Your task to perform on an android device: turn off location Image 0: 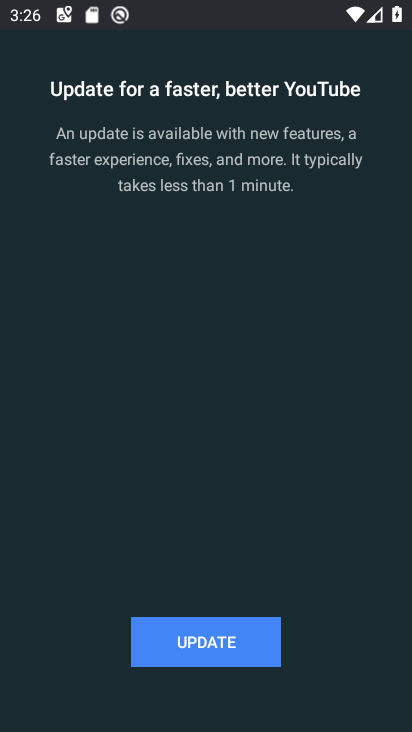
Step 0: press home button
Your task to perform on an android device: turn off location Image 1: 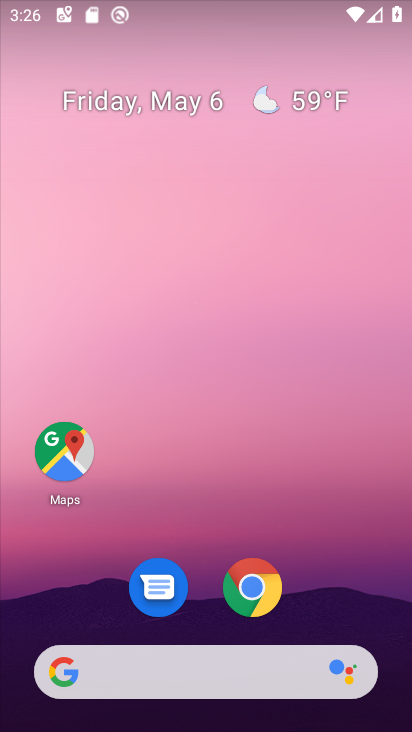
Step 1: drag from (287, 484) to (311, 23)
Your task to perform on an android device: turn off location Image 2: 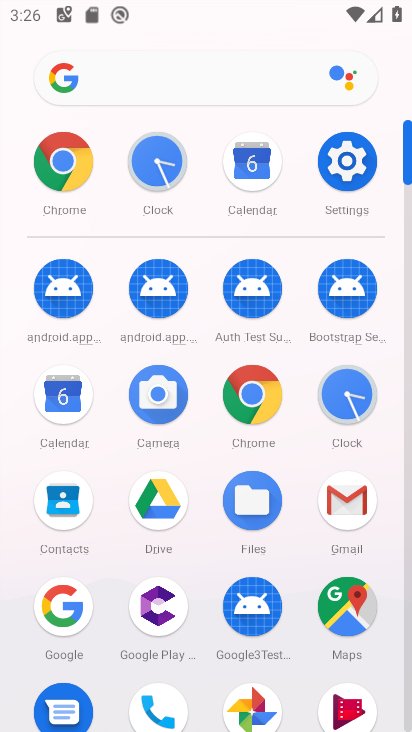
Step 2: click (347, 158)
Your task to perform on an android device: turn off location Image 3: 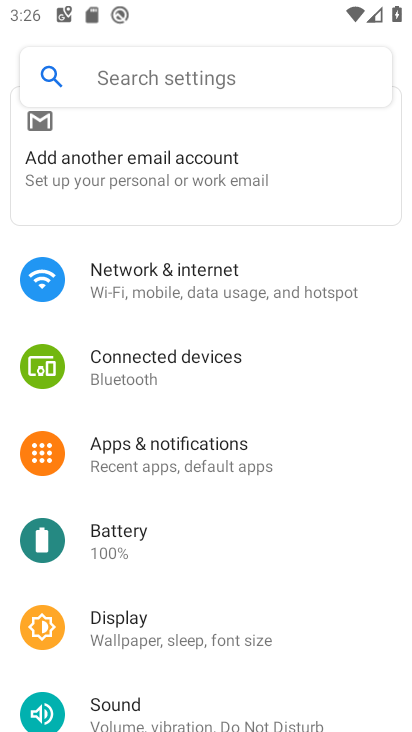
Step 3: drag from (261, 556) to (286, 153)
Your task to perform on an android device: turn off location Image 4: 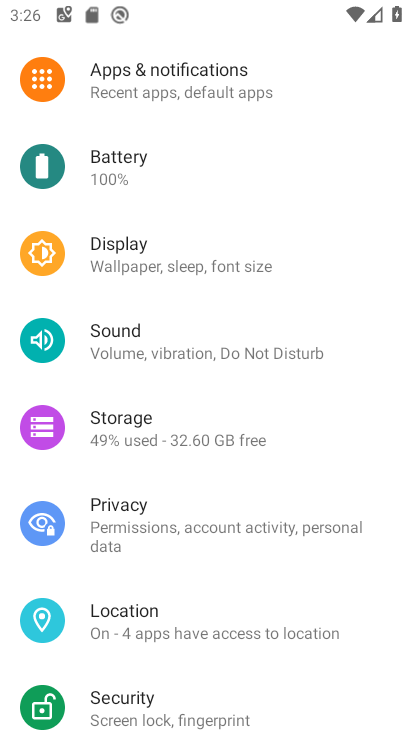
Step 4: click (182, 622)
Your task to perform on an android device: turn off location Image 5: 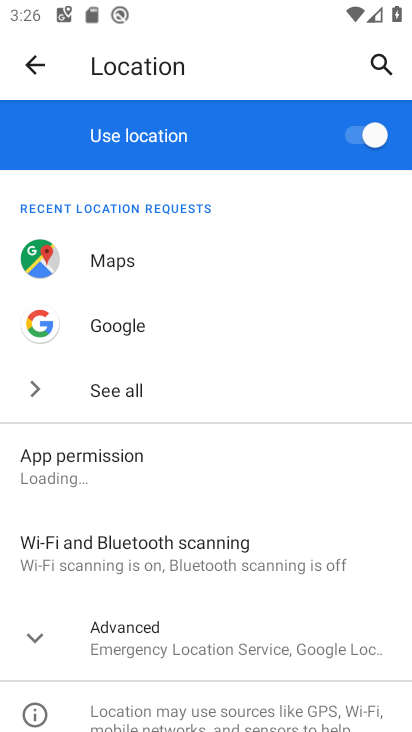
Step 5: click (362, 128)
Your task to perform on an android device: turn off location Image 6: 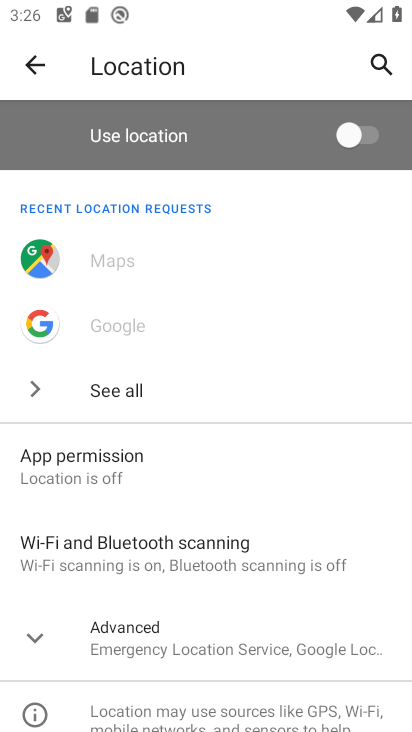
Step 6: task complete